Your task to perform on an android device: Go to ESPN.com Image 0: 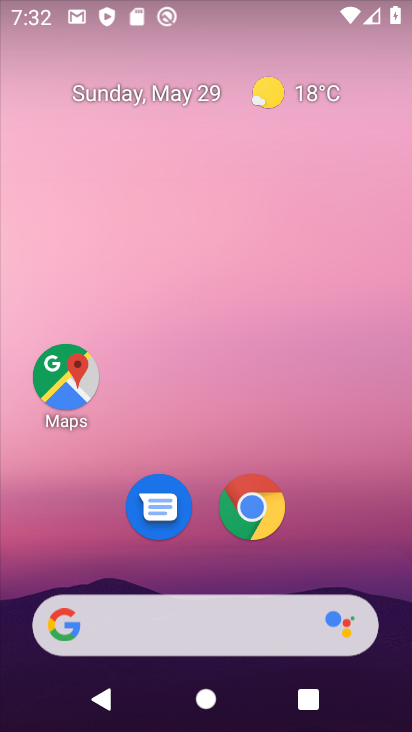
Step 0: click (218, 629)
Your task to perform on an android device: Go to ESPN.com Image 1: 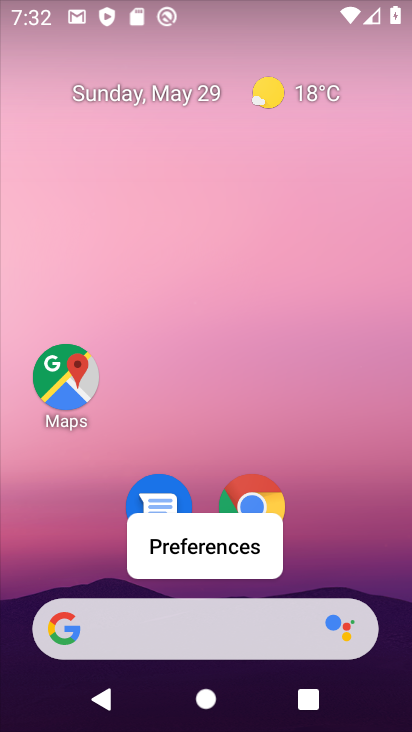
Step 1: click (220, 628)
Your task to perform on an android device: Go to ESPN.com Image 2: 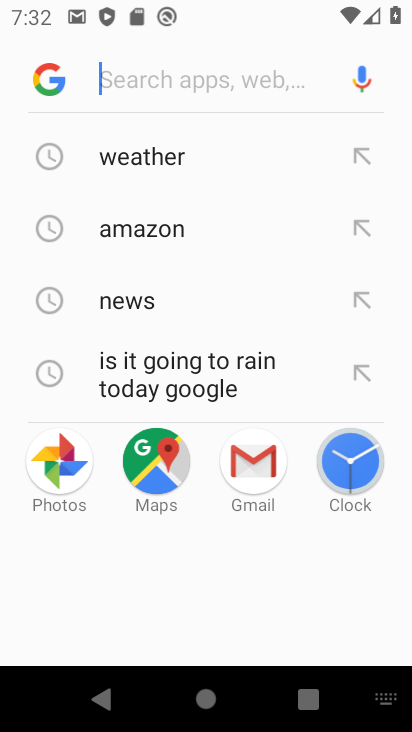
Step 2: type " ESPN.com"
Your task to perform on an android device: Go to ESPN.com Image 3: 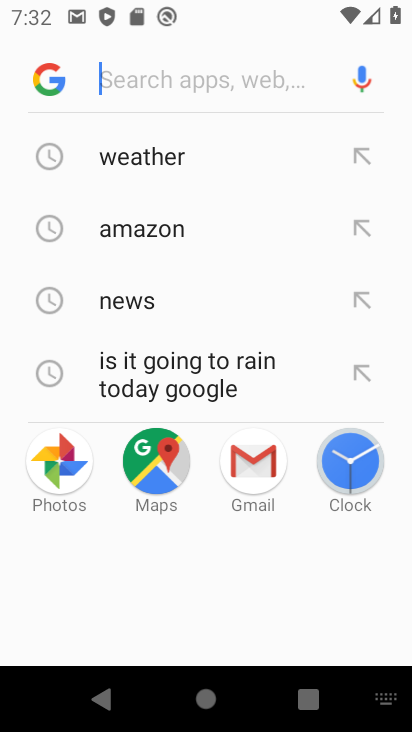
Step 3: click (134, 88)
Your task to perform on an android device: Go to ESPN.com Image 4: 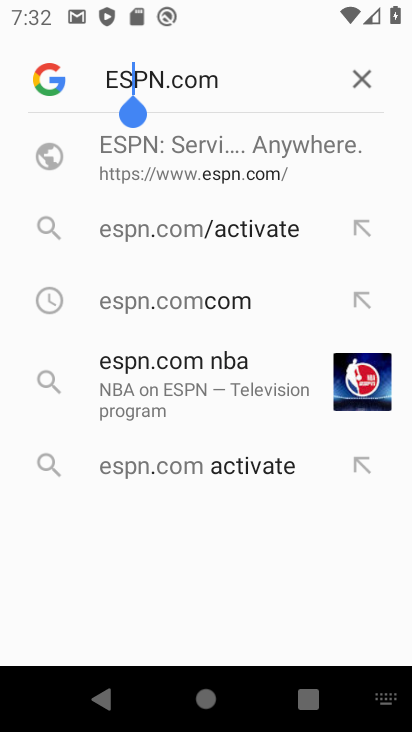
Step 4: click (182, 148)
Your task to perform on an android device: Go to ESPN.com Image 5: 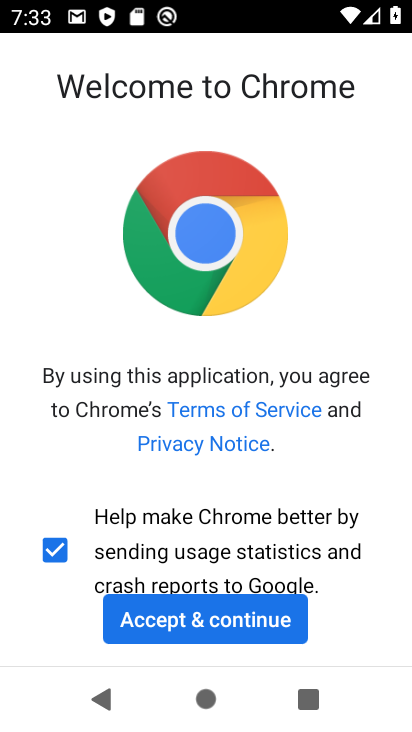
Step 5: click (242, 621)
Your task to perform on an android device: Go to ESPN.com Image 6: 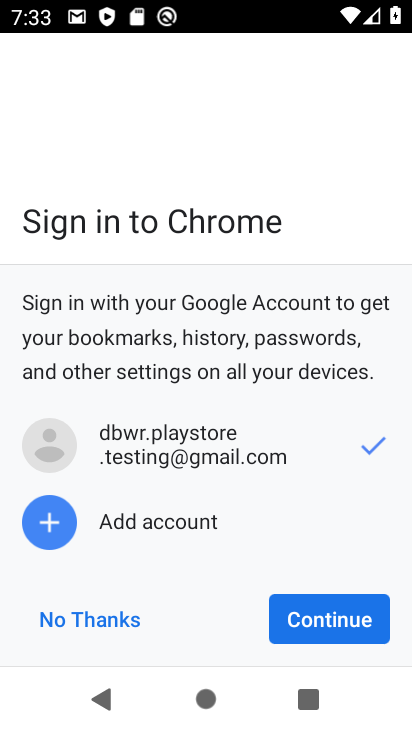
Step 6: click (242, 621)
Your task to perform on an android device: Go to ESPN.com Image 7: 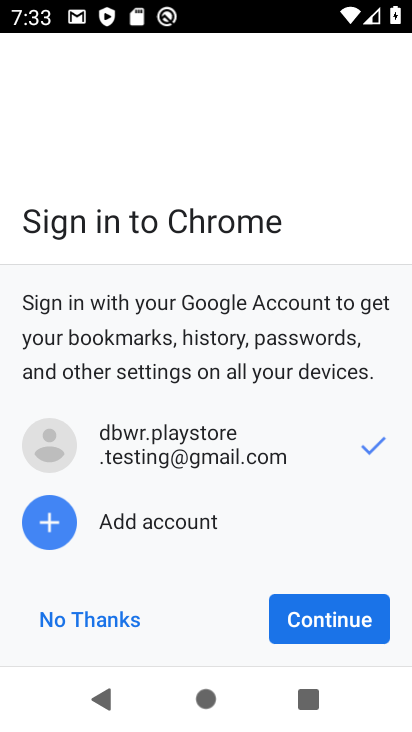
Step 7: click (336, 621)
Your task to perform on an android device: Go to ESPN.com Image 8: 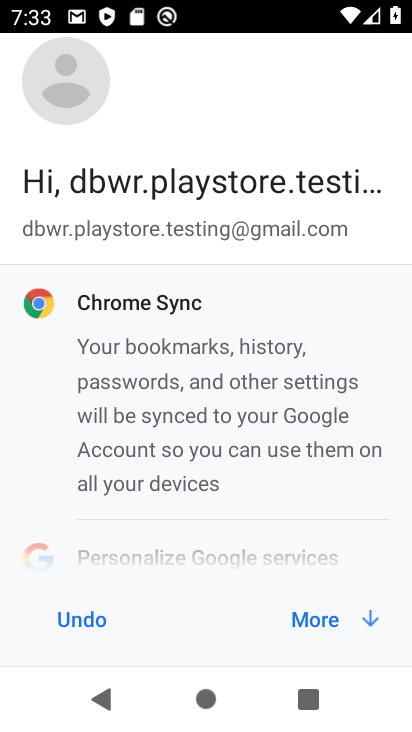
Step 8: click (370, 614)
Your task to perform on an android device: Go to ESPN.com Image 9: 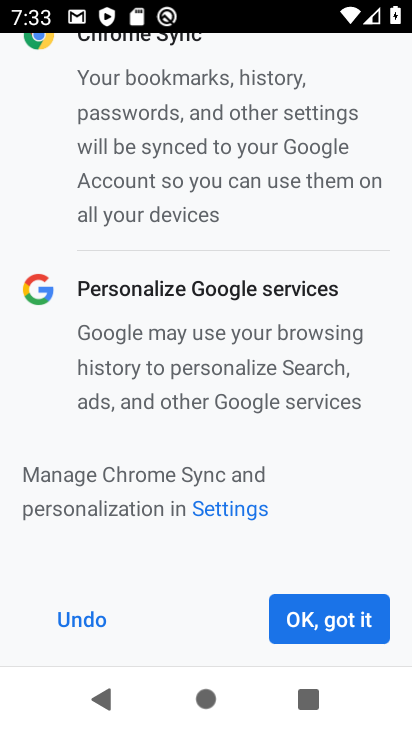
Step 9: click (370, 613)
Your task to perform on an android device: Go to ESPN.com Image 10: 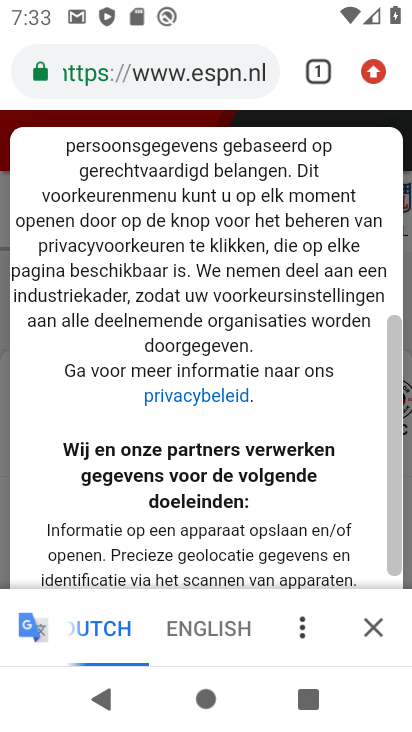
Step 10: task complete